Your task to perform on an android device: Open Yahoo.com Image 0: 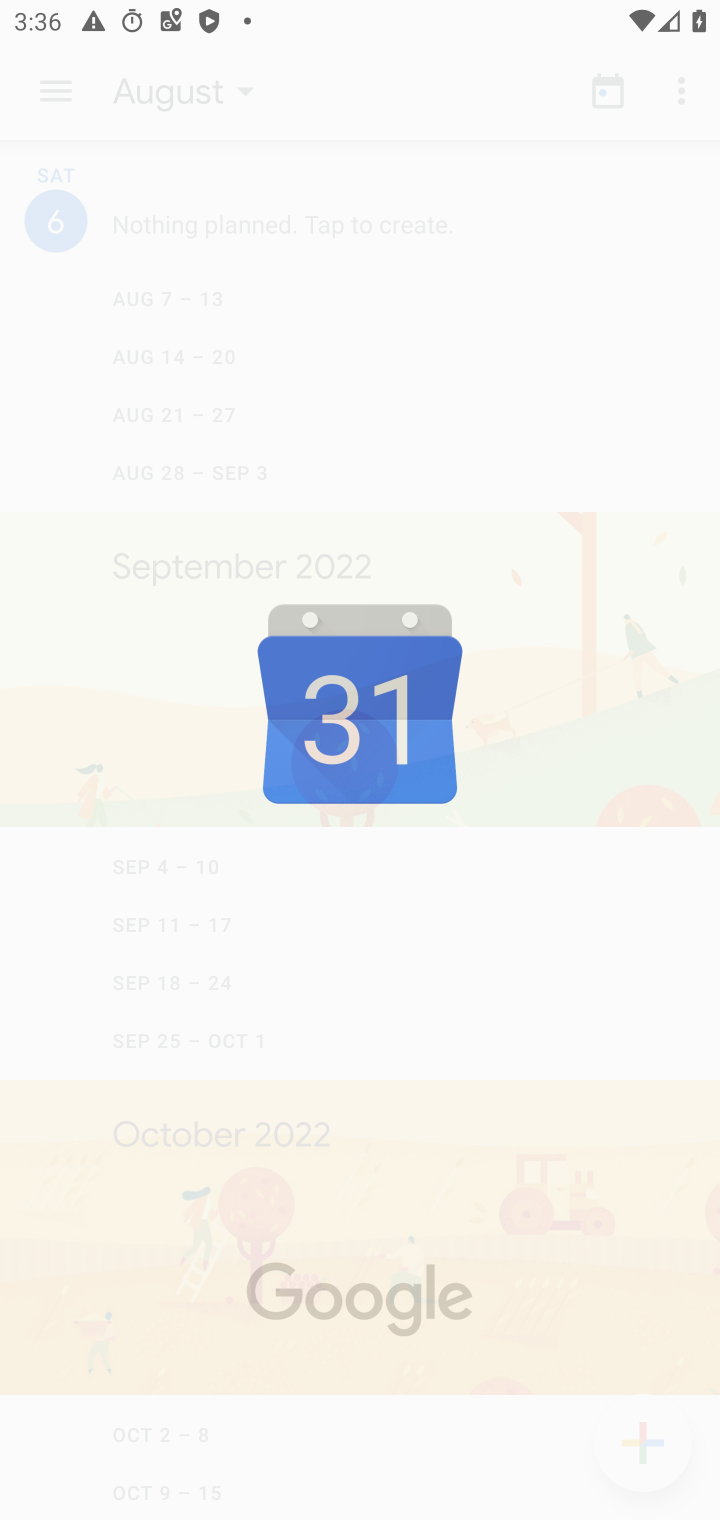
Step 0: drag from (362, 1327) to (384, 224)
Your task to perform on an android device: Open Yahoo.com Image 1: 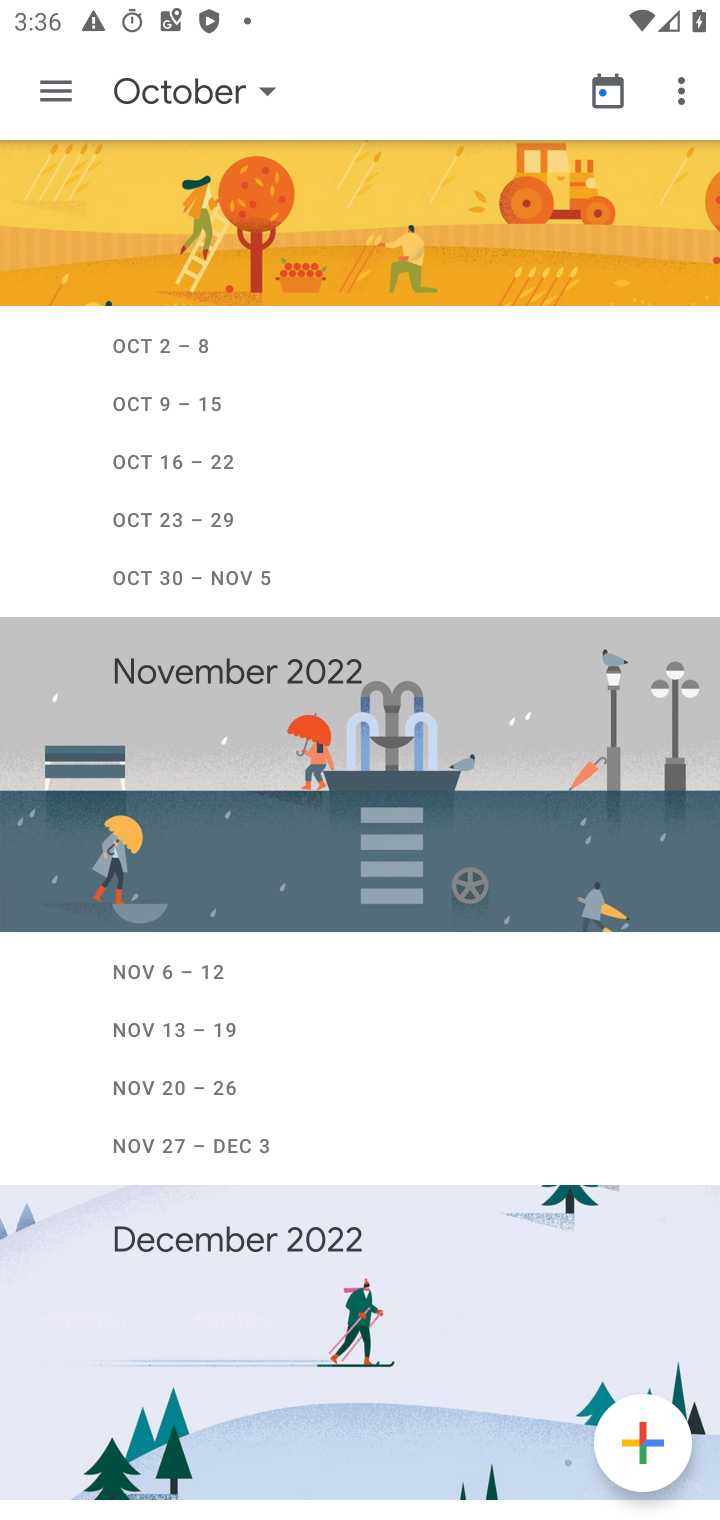
Step 1: press home button
Your task to perform on an android device: Open Yahoo.com Image 2: 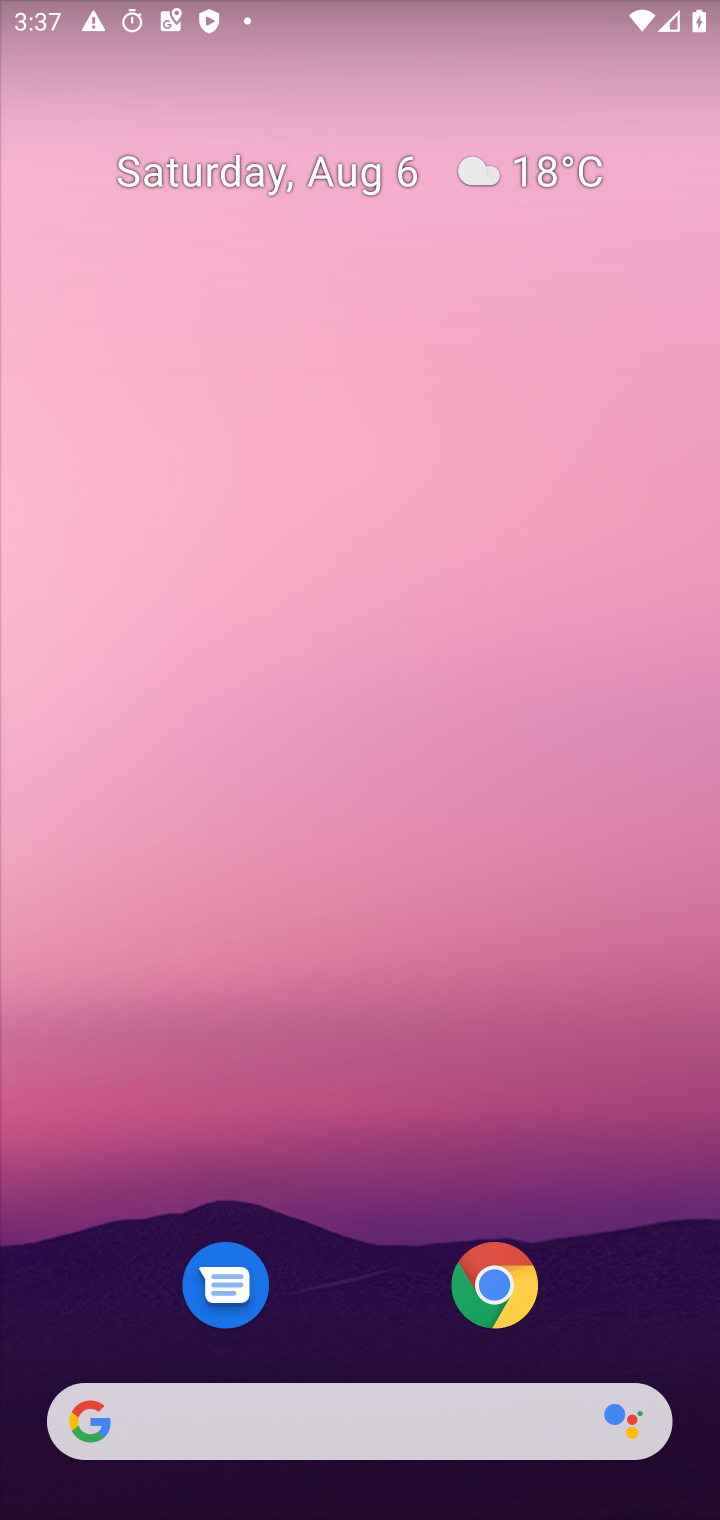
Step 2: click (489, 1284)
Your task to perform on an android device: Open Yahoo.com Image 3: 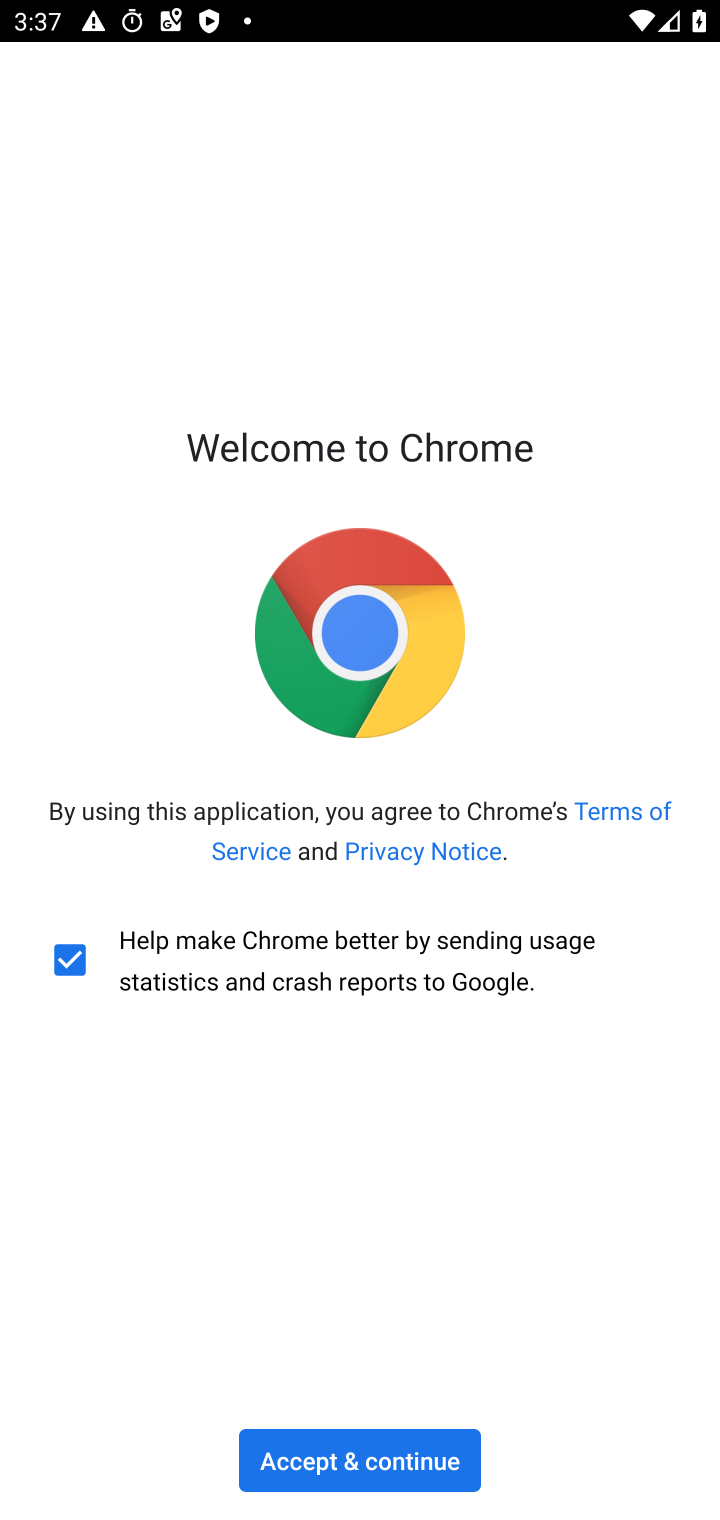
Step 3: click (339, 1446)
Your task to perform on an android device: Open Yahoo.com Image 4: 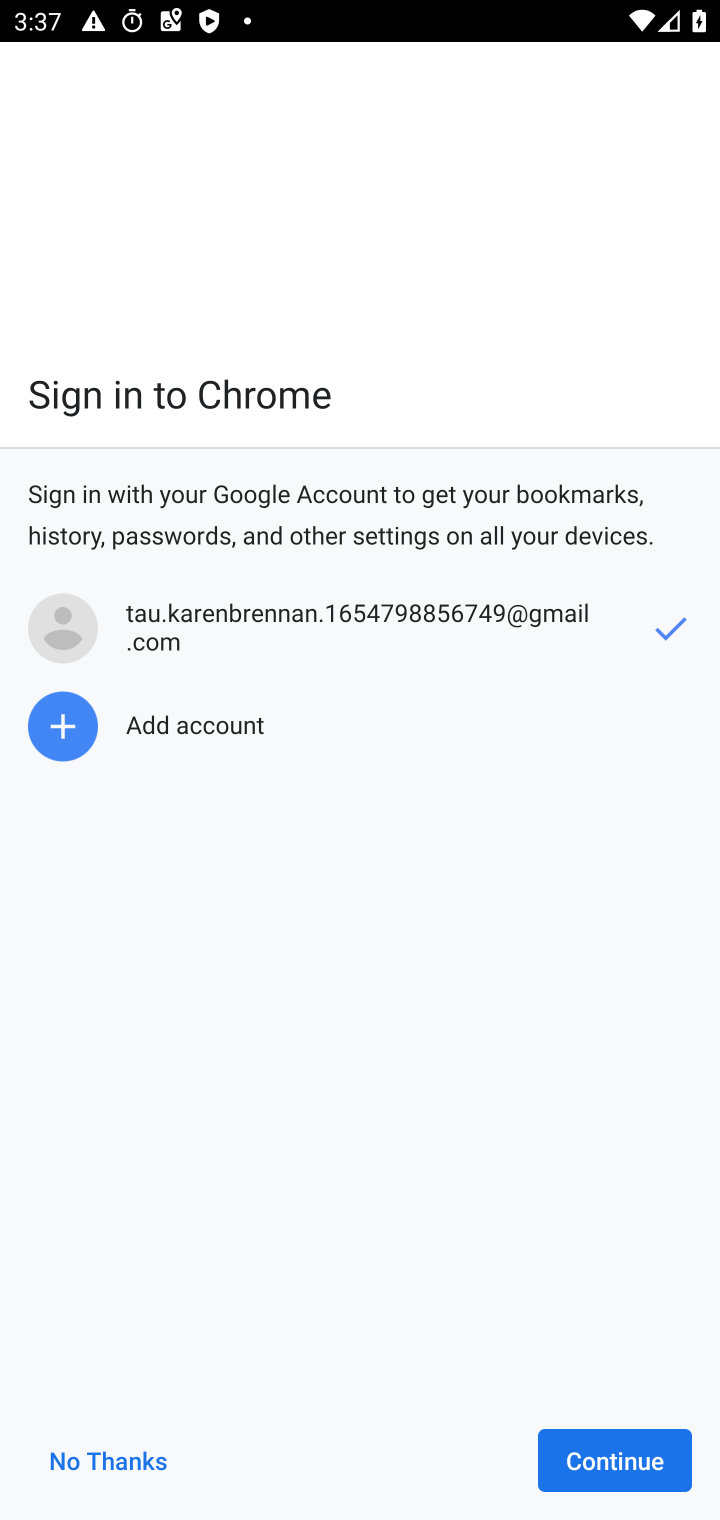
Step 4: click (604, 1457)
Your task to perform on an android device: Open Yahoo.com Image 5: 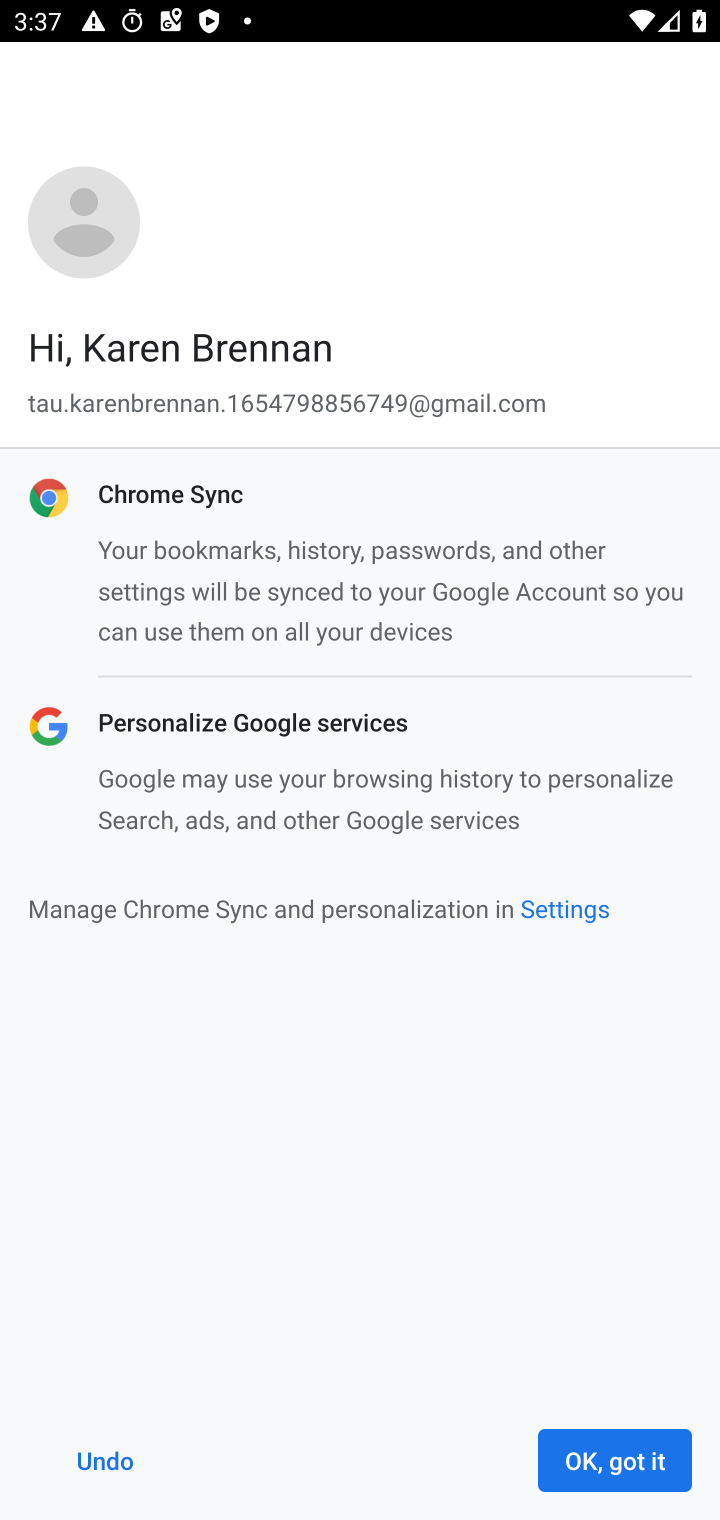
Step 5: click (619, 1454)
Your task to perform on an android device: Open Yahoo.com Image 6: 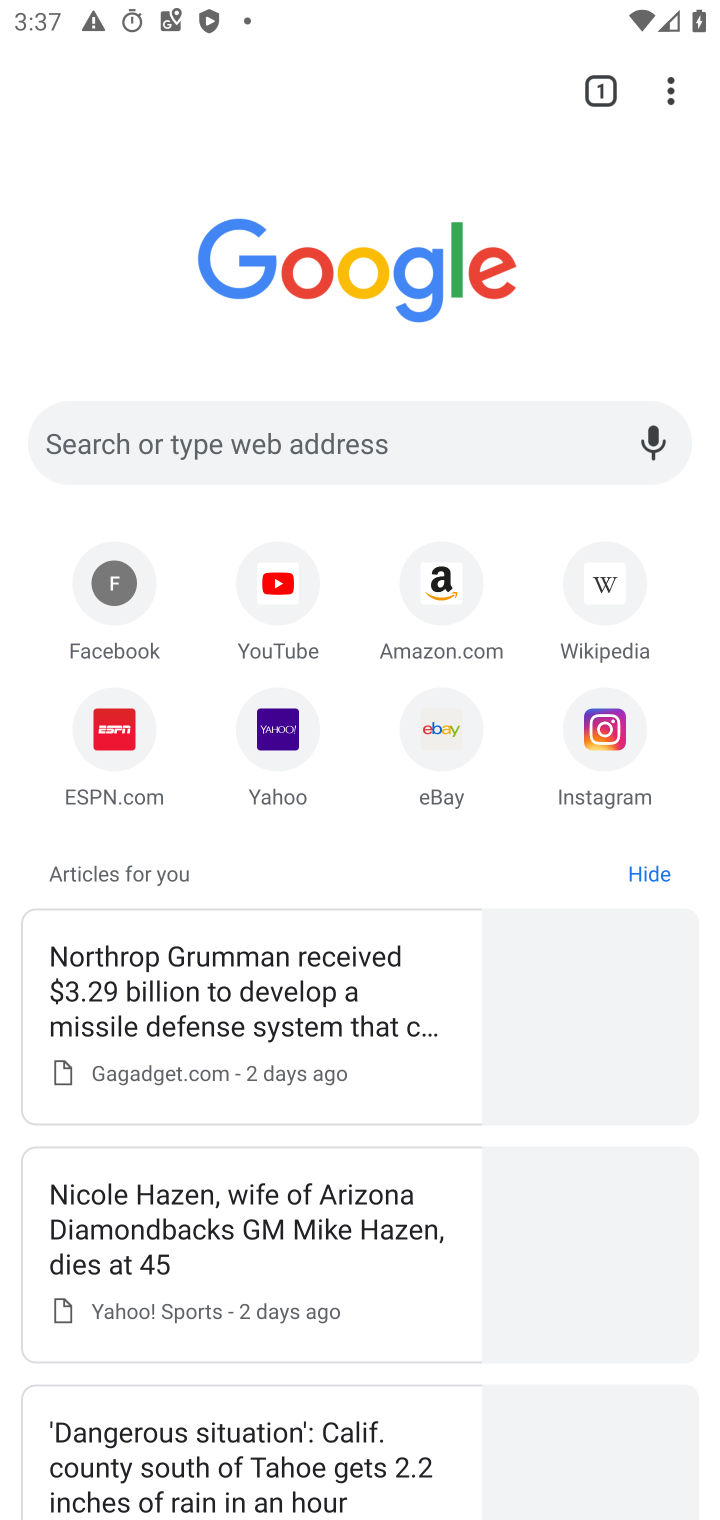
Step 6: click (279, 722)
Your task to perform on an android device: Open Yahoo.com Image 7: 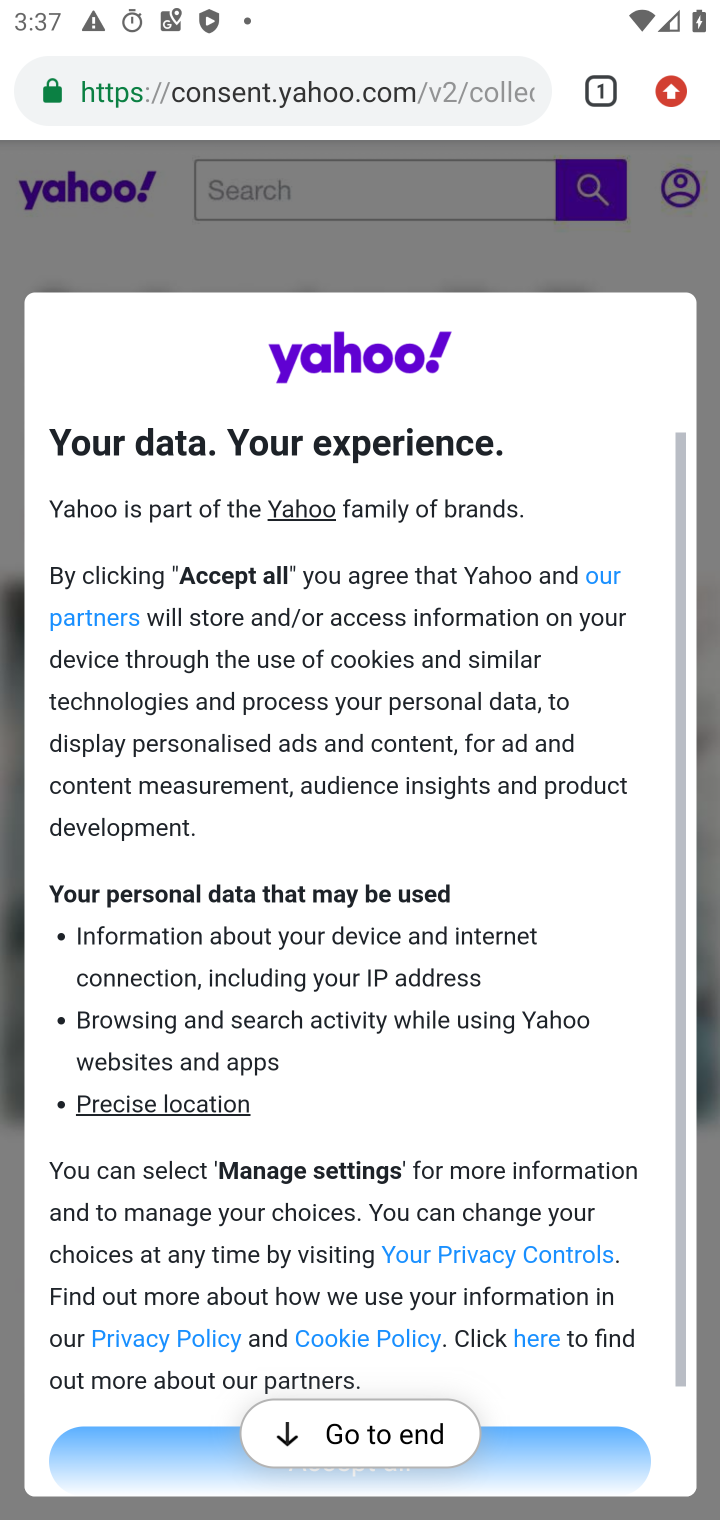
Step 7: click (358, 1455)
Your task to perform on an android device: Open Yahoo.com Image 8: 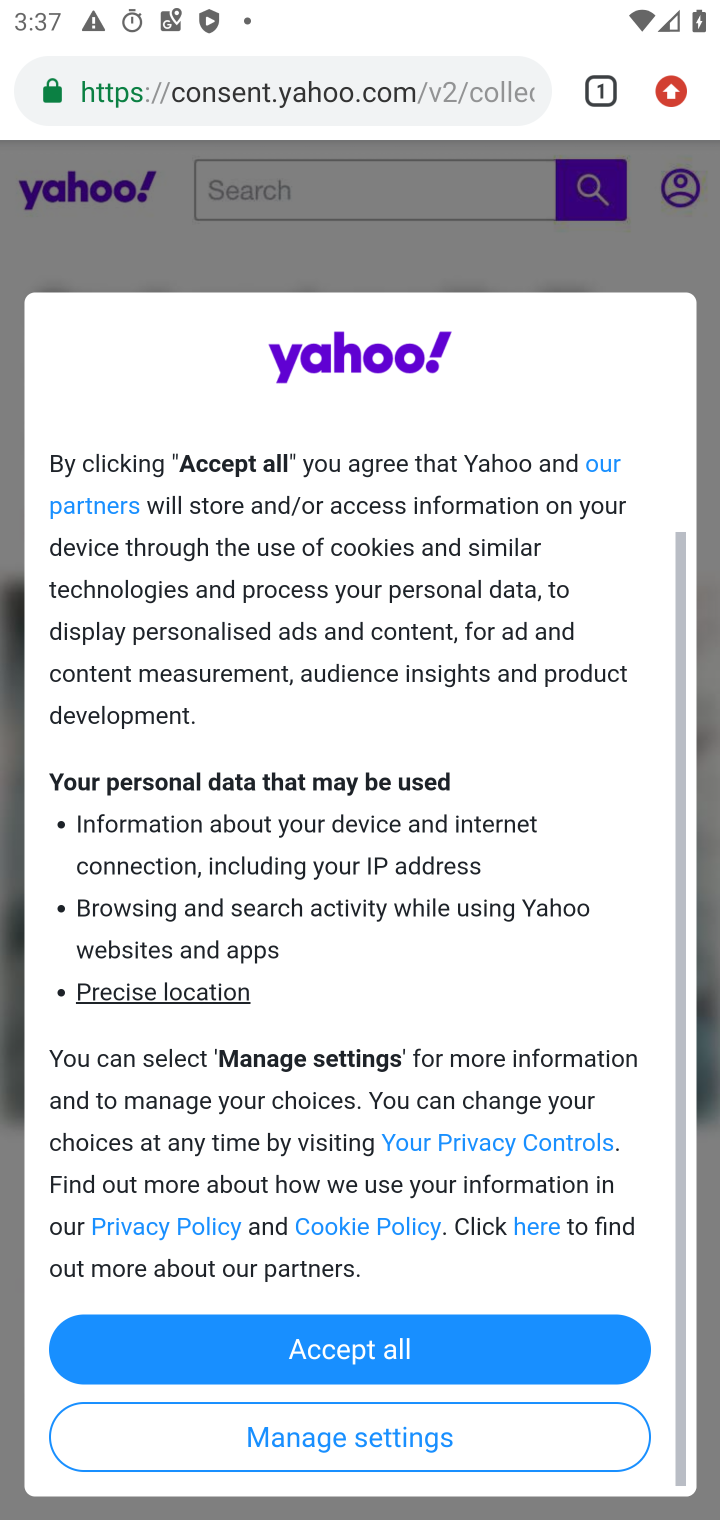
Step 8: click (363, 1338)
Your task to perform on an android device: Open Yahoo.com Image 9: 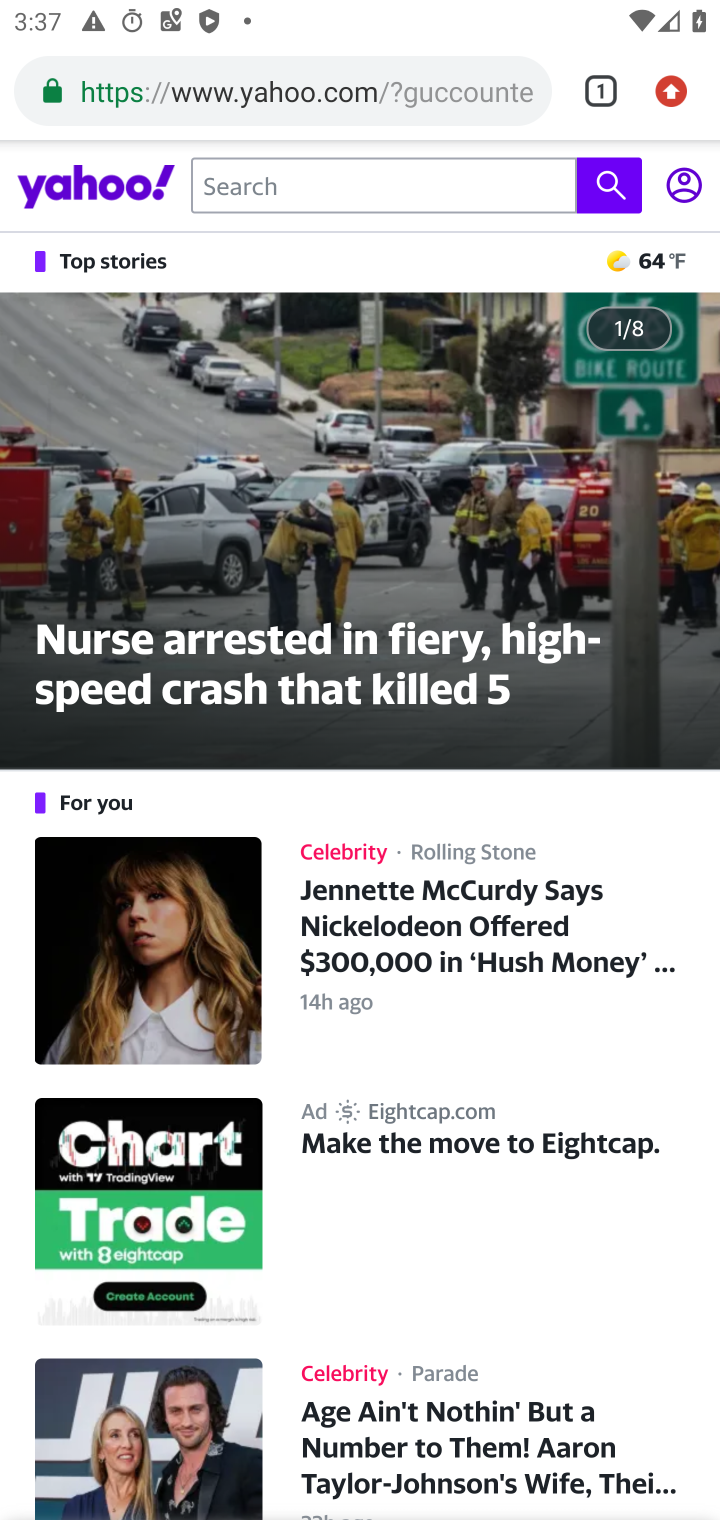
Step 9: task complete